Your task to perform on an android device: open app "The Home Depot" (install if not already installed) Image 0: 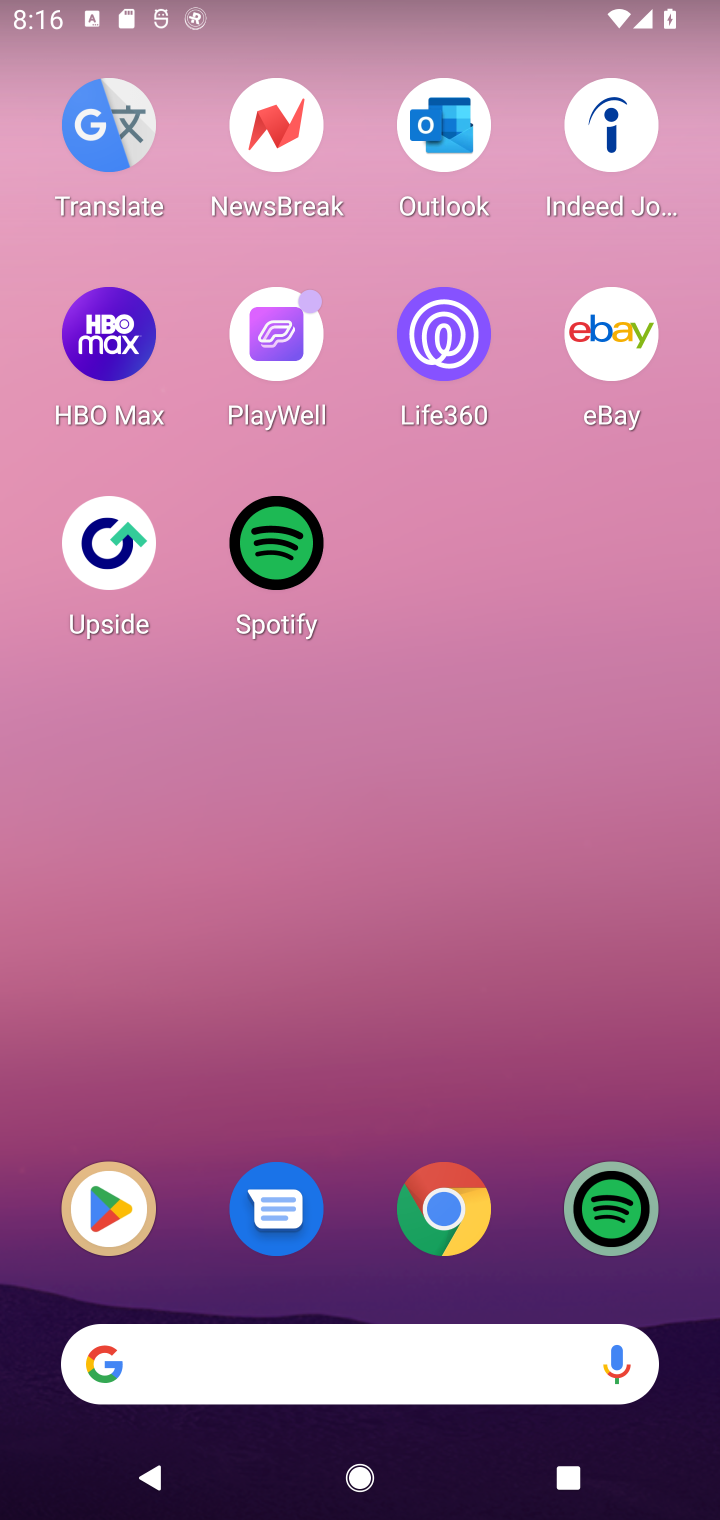
Step 0: press home button
Your task to perform on an android device: open app "The Home Depot" (install if not already installed) Image 1: 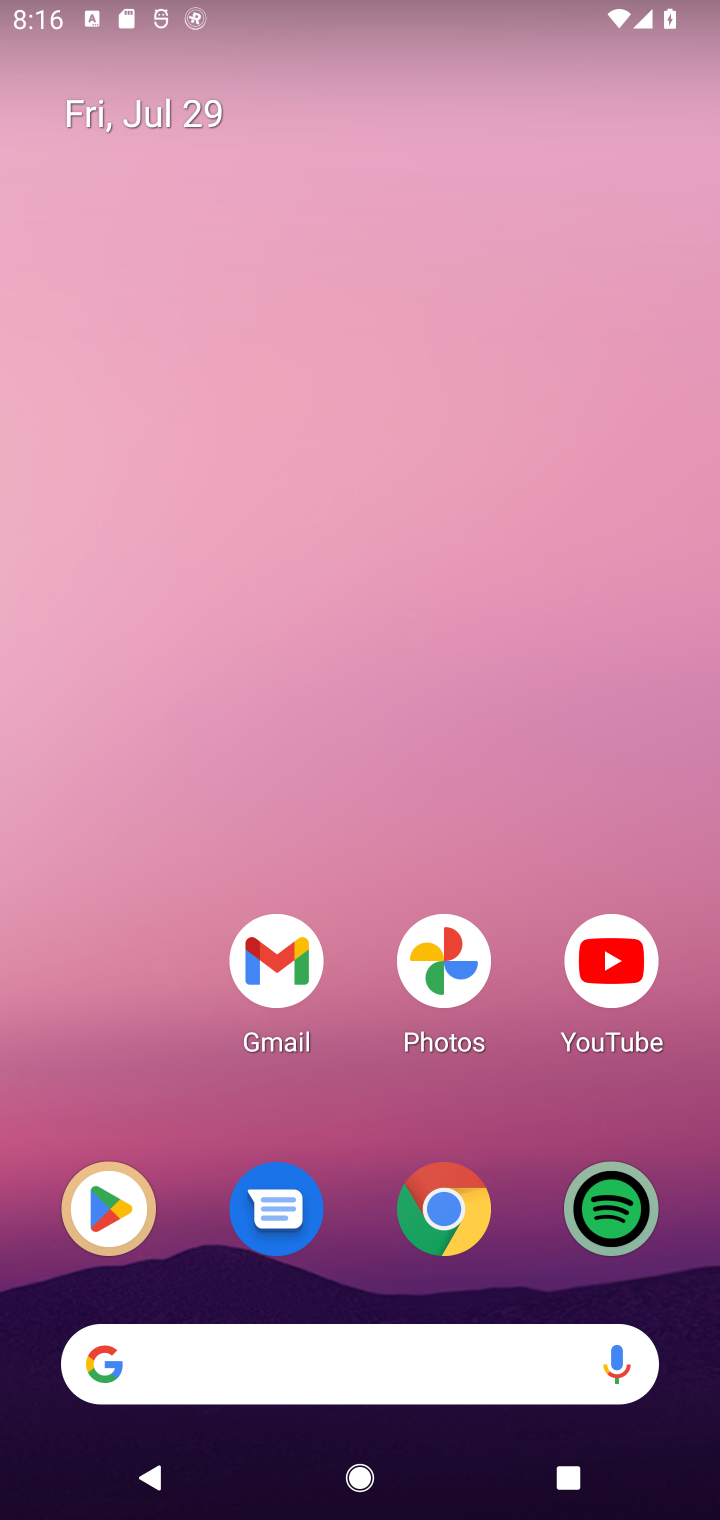
Step 1: click (105, 1211)
Your task to perform on an android device: open app "The Home Depot" (install if not already installed) Image 2: 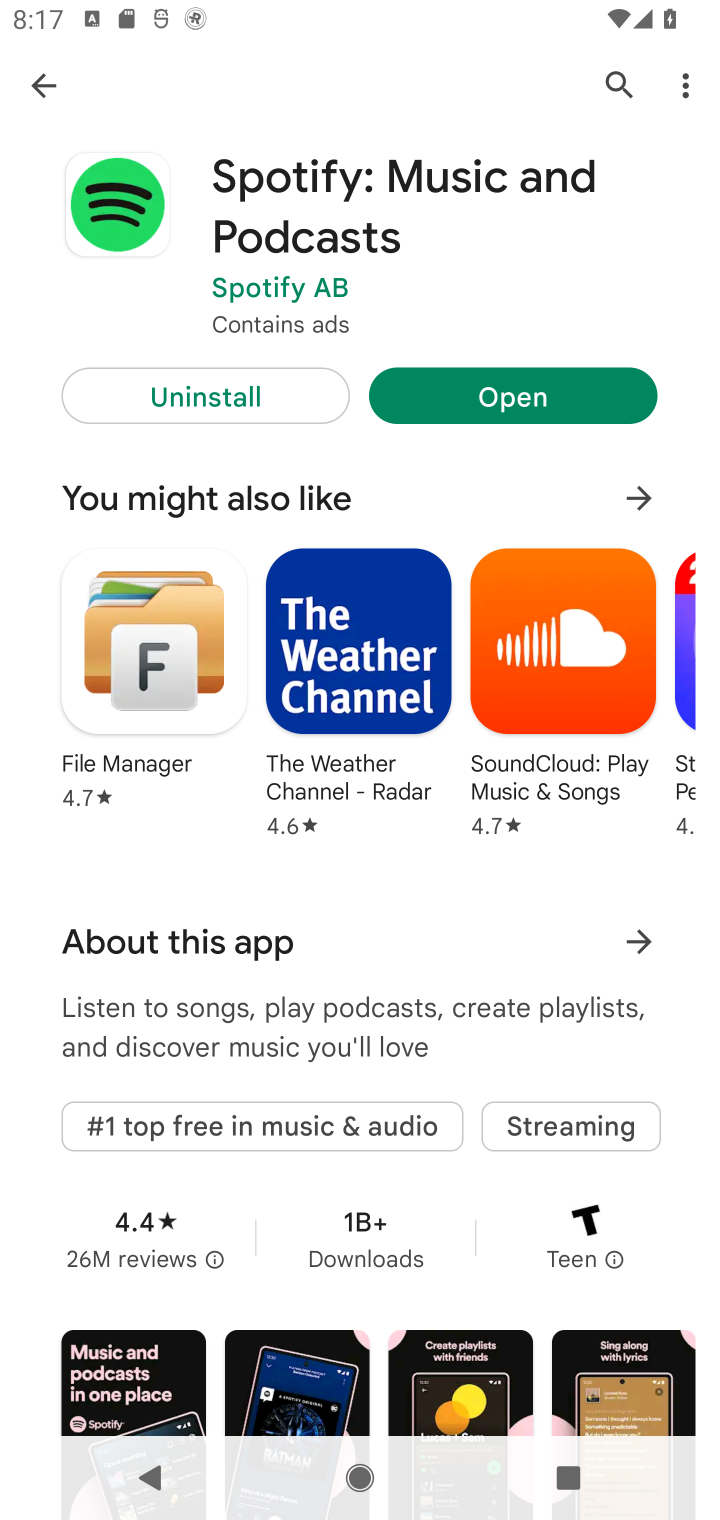
Step 2: click (624, 83)
Your task to perform on an android device: open app "The Home Depot" (install if not already installed) Image 3: 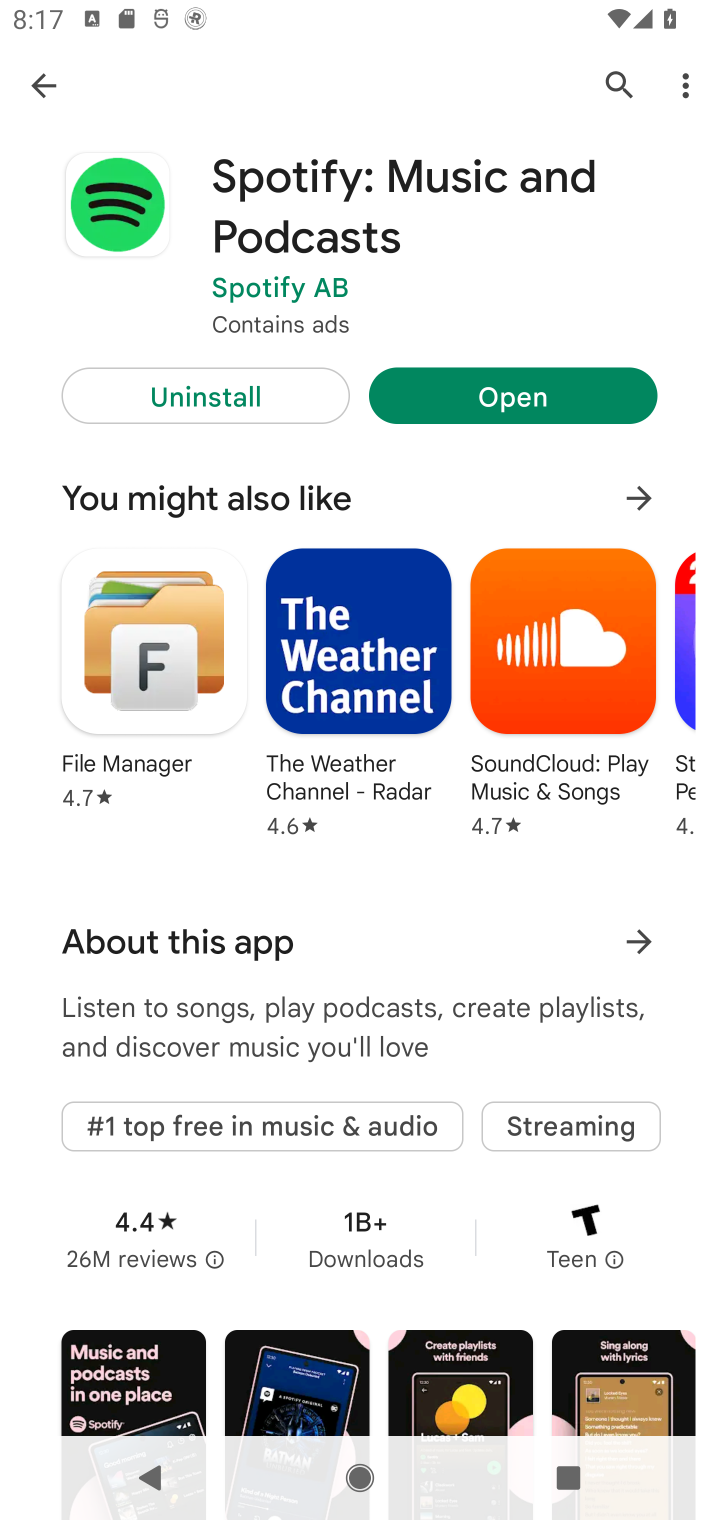
Step 3: click (614, 80)
Your task to perform on an android device: open app "The Home Depot" (install if not already installed) Image 4: 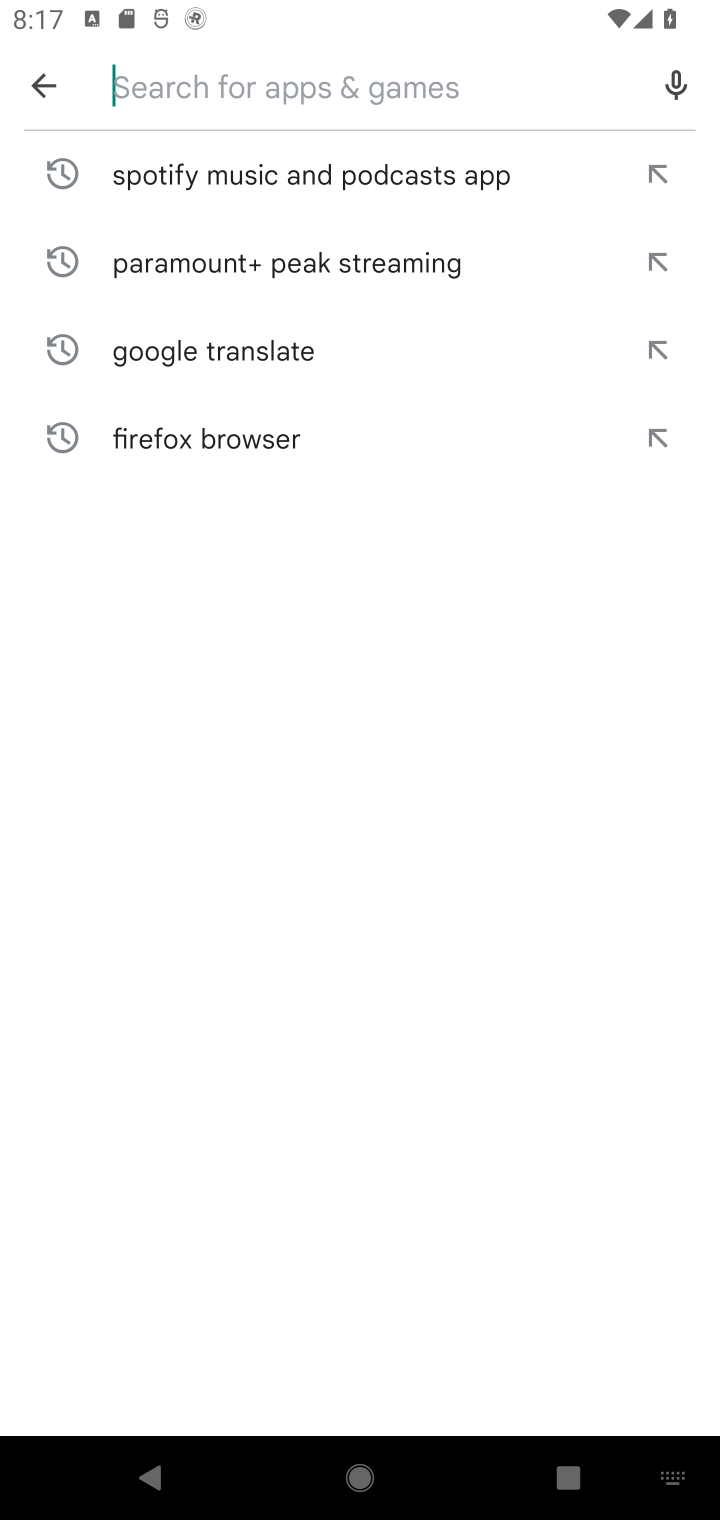
Step 4: type "The Home Depot"
Your task to perform on an android device: open app "The Home Depot" (install if not already installed) Image 5: 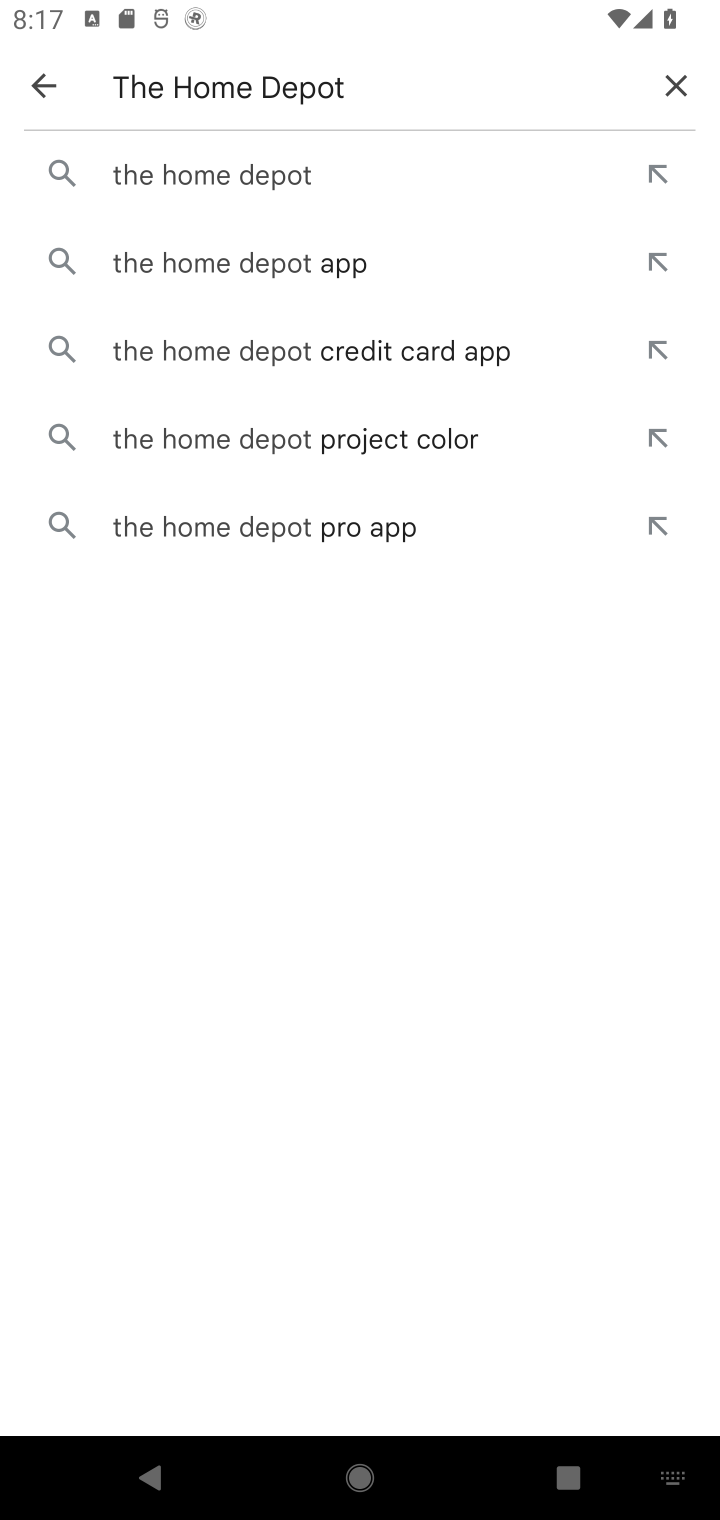
Step 5: click (176, 188)
Your task to perform on an android device: open app "The Home Depot" (install if not already installed) Image 6: 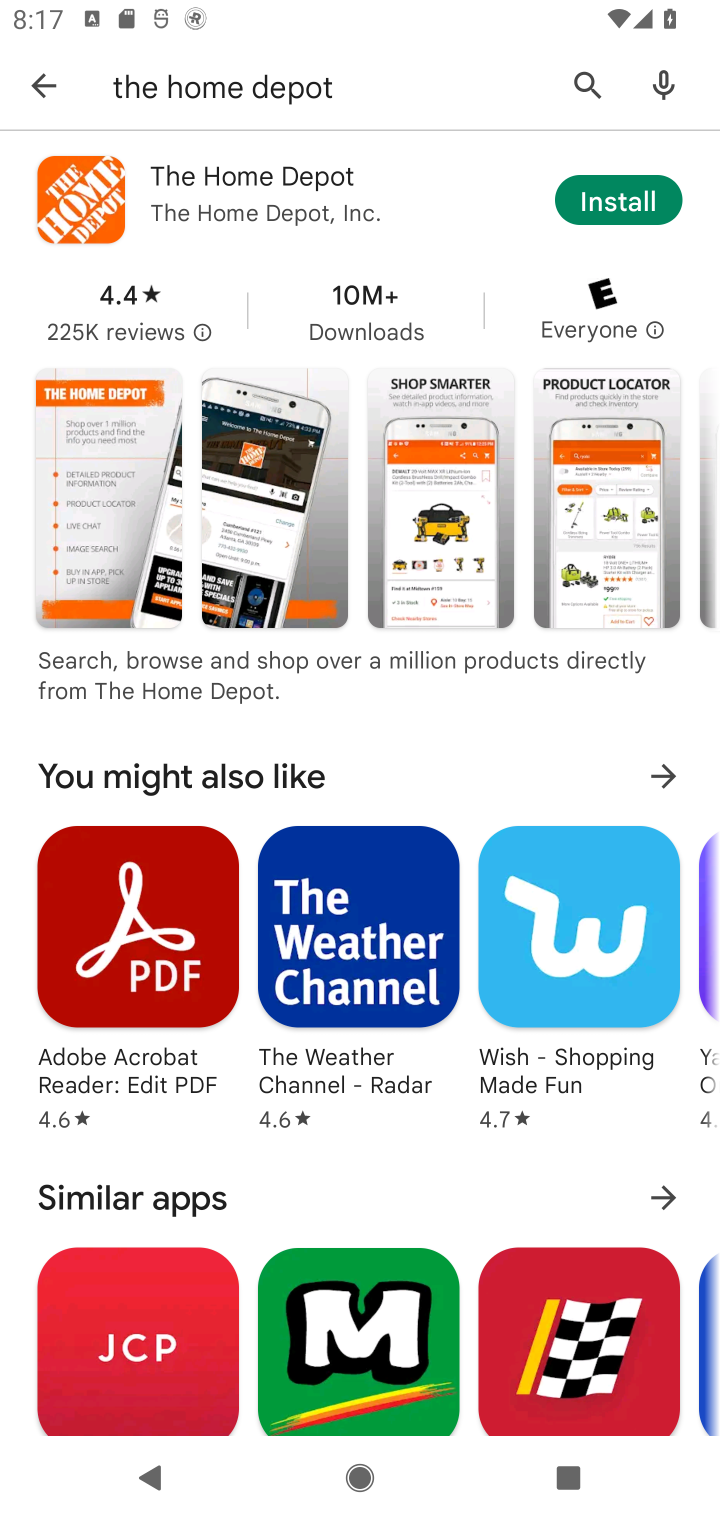
Step 6: click (613, 208)
Your task to perform on an android device: open app "The Home Depot" (install if not already installed) Image 7: 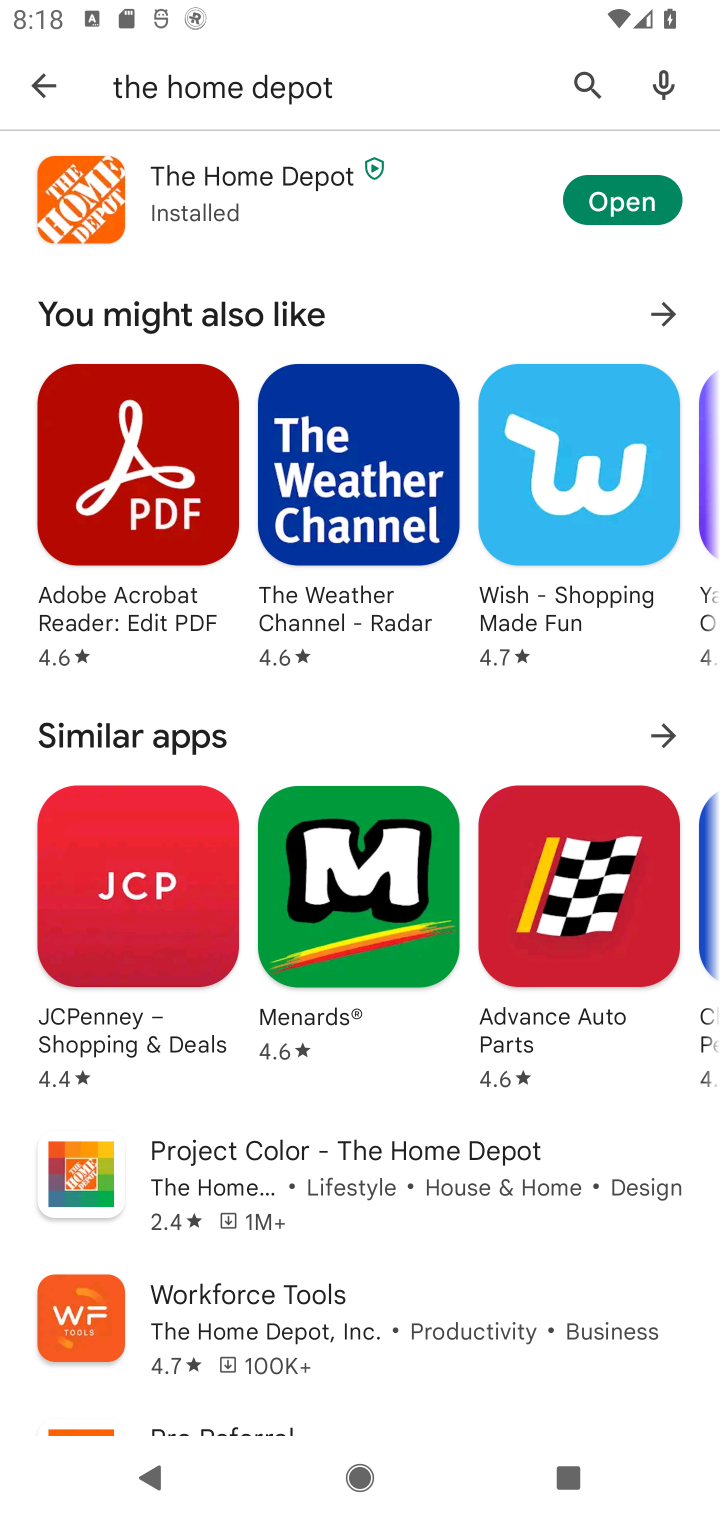
Step 7: click (579, 209)
Your task to perform on an android device: open app "The Home Depot" (install if not already installed) Image 8: 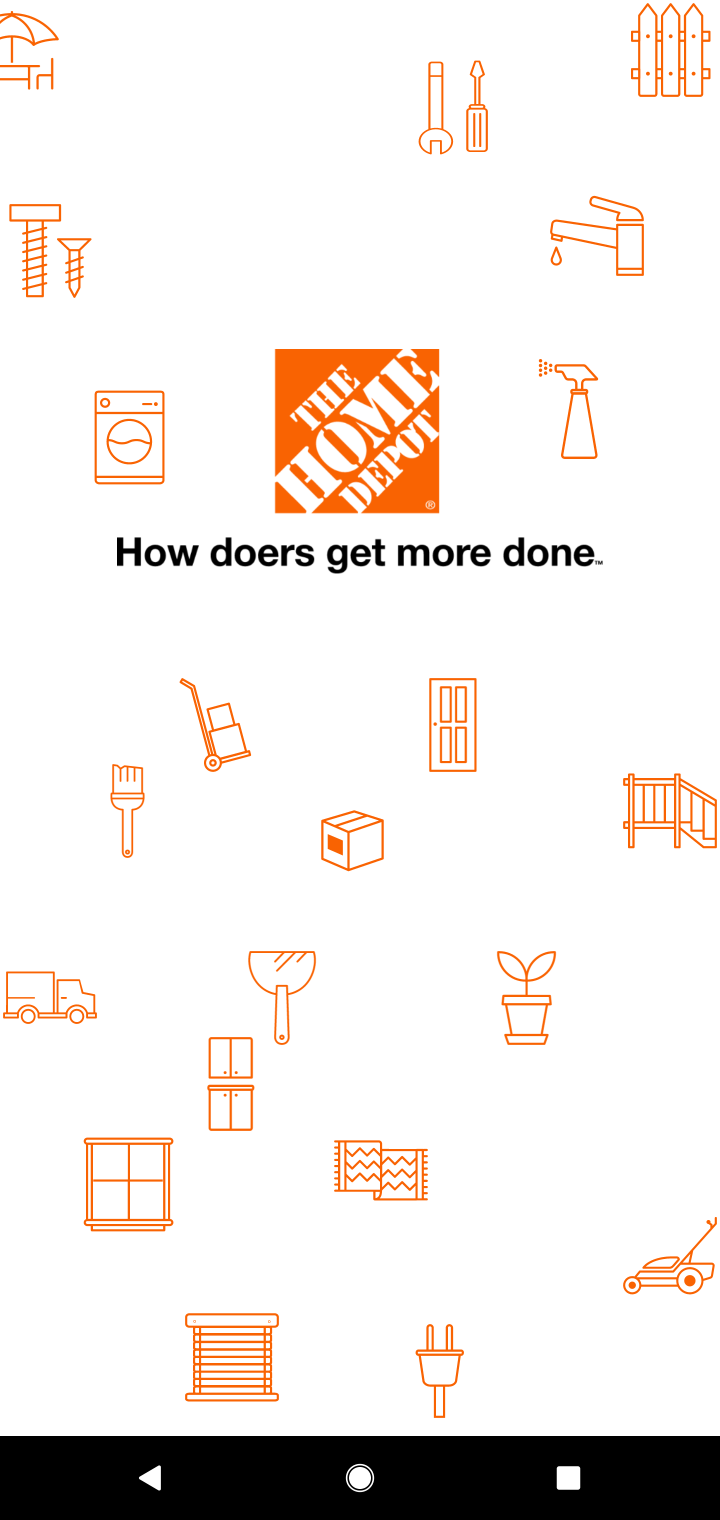
Step 8: task complete